Your task to perform on an android device: check data usage Image 0: 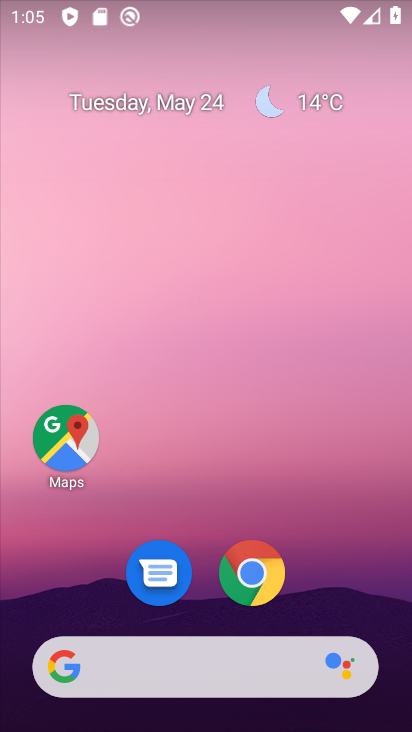
Step 0: drag from (321, 13) to (311, 171)
Your task to perform on an android device: check data usage Image 1: 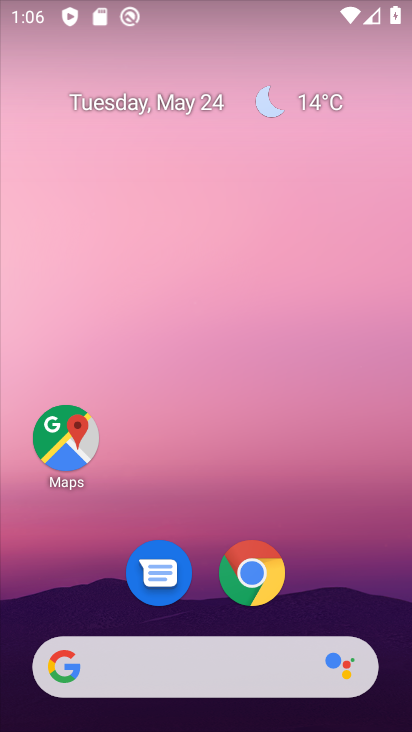
Step 1: drag from (364, 8) to (65, 459)
Your task to perform on an android device: check data usage Image 2: 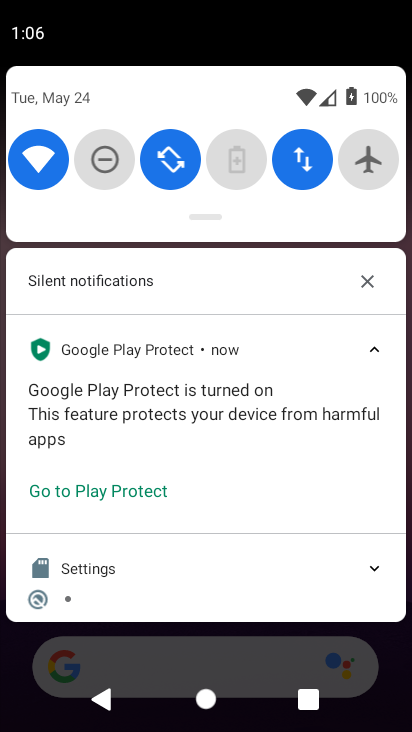
Step 2: click (298, 160)
Your task to perform on an android device: check data usage Image 3: 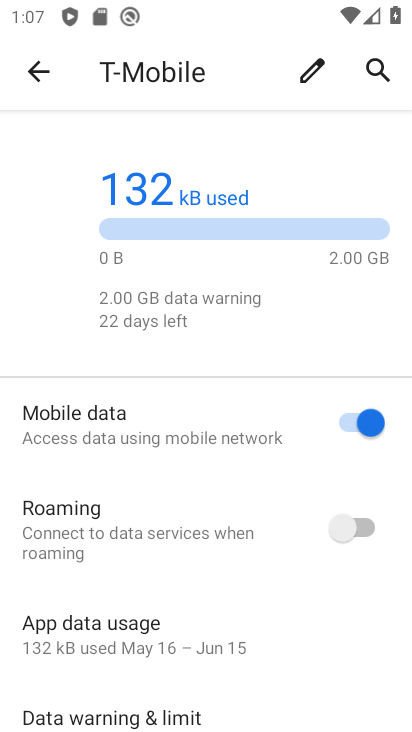
Step 3: task complete